Your task to perform on an android device: Open the web browser Image 0: 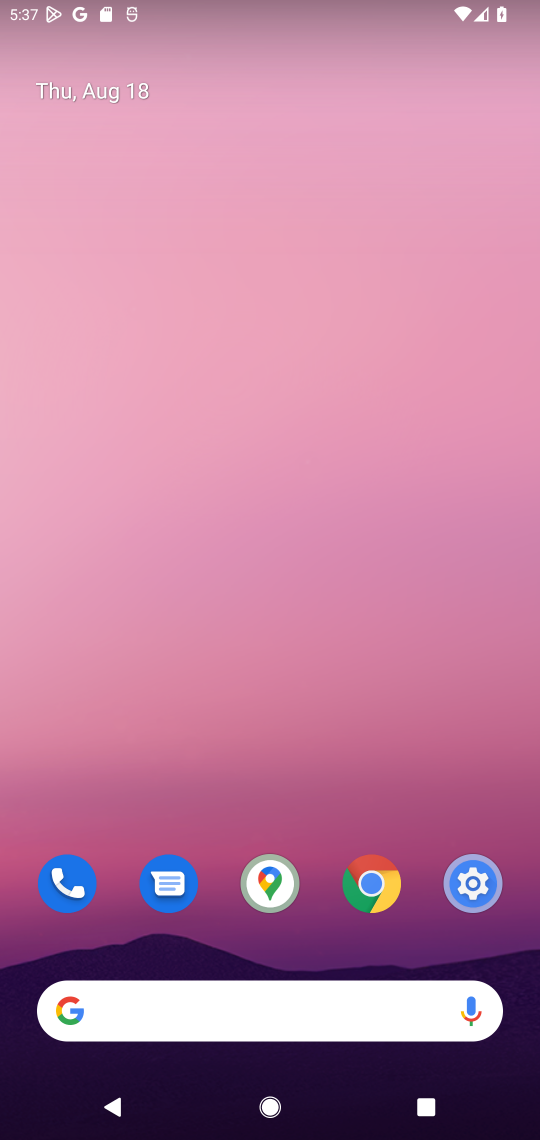
Step 0: drag from (295, 940) to (261, 69)
Your task to perform on an android device: Open the web browser Image 1: 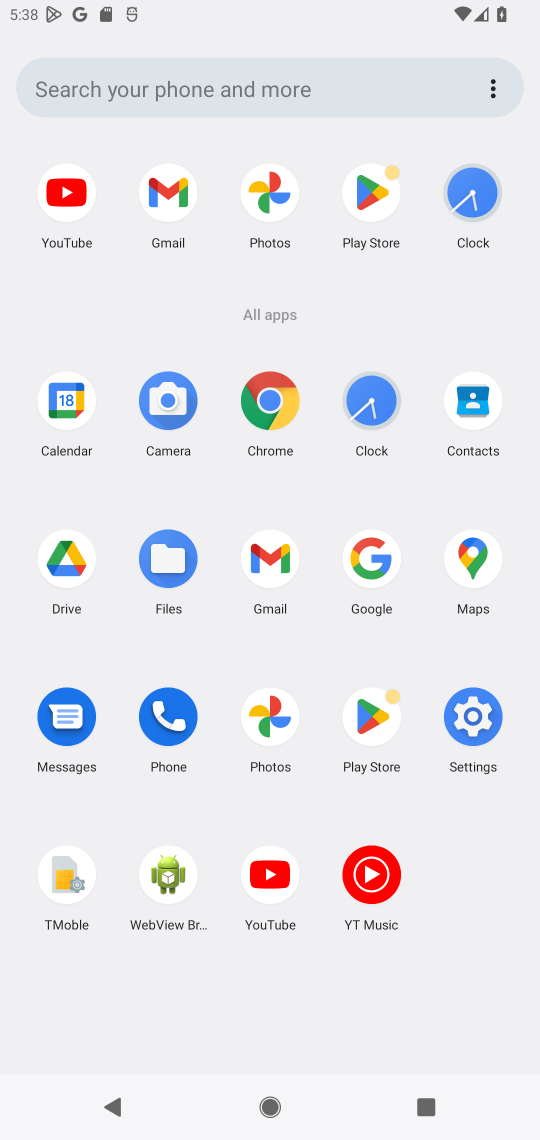
Step 1: click (269, 386)
Your task to perform on an android device: Open the web browser Image 2: 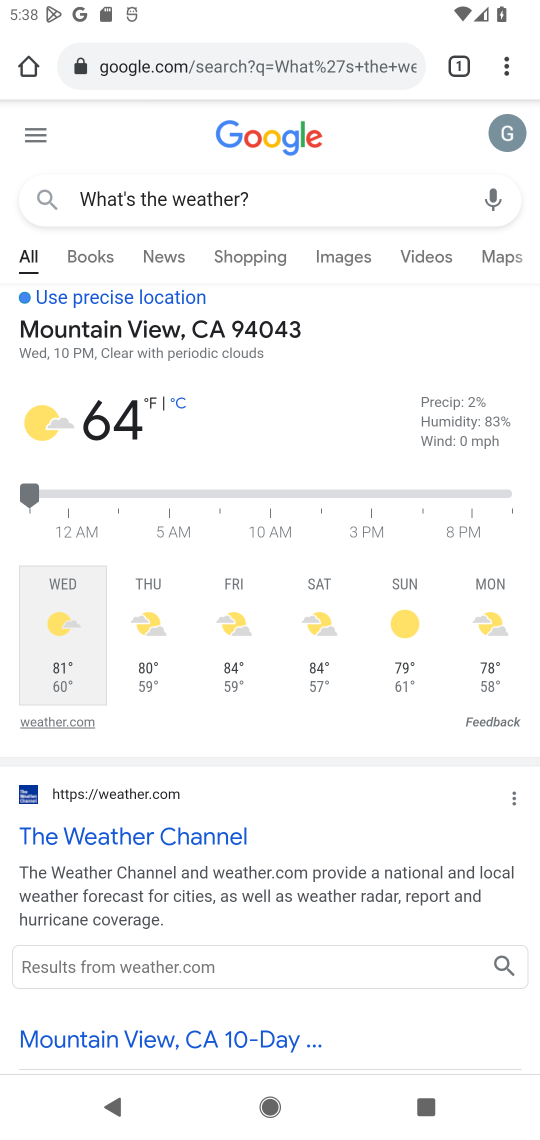
Step 2: click (267, 60)
Your task to perform on an android device: Open the web browser Image 3: 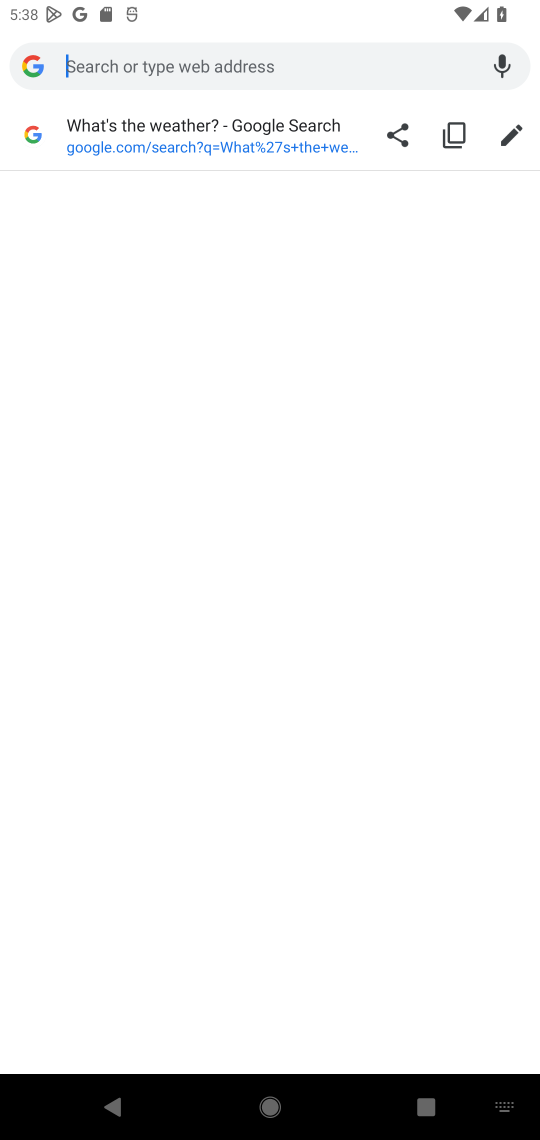
Step 3: type " web browser"
Your task to perform on an android device: Open the web browser Image 4: 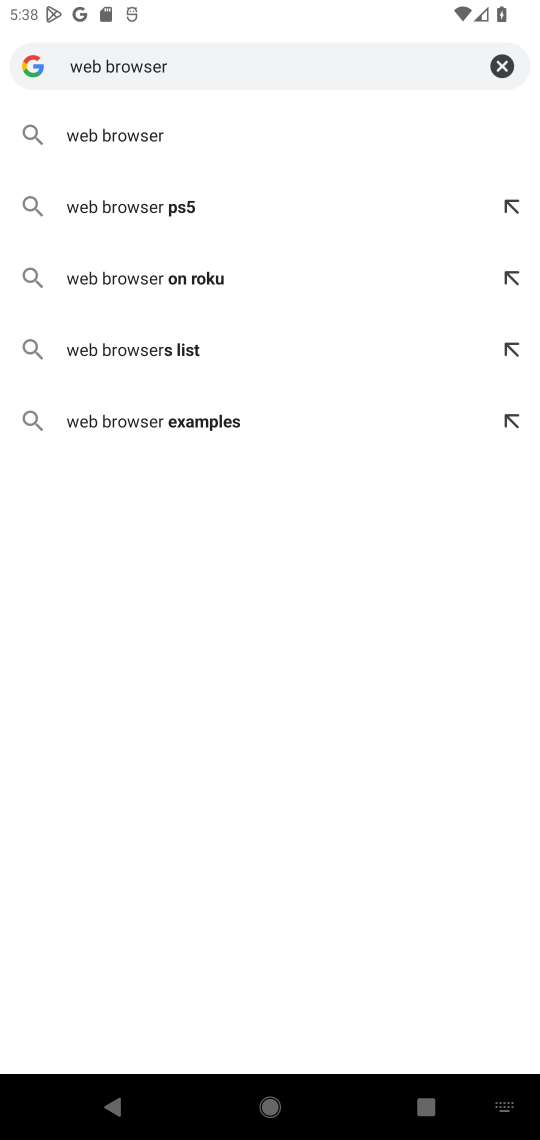
Step 4: click (113, 135)
Your task to perform on an android device: Open the web browser Image 5: 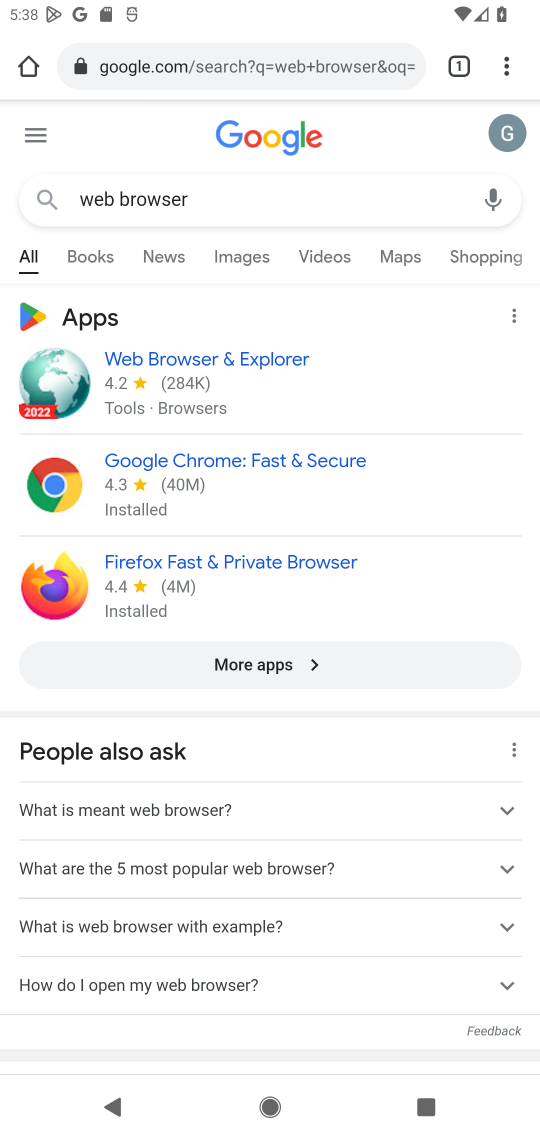
Step 5: task complete